Your task to perform on an android device: open device folders in google photos Image 0: 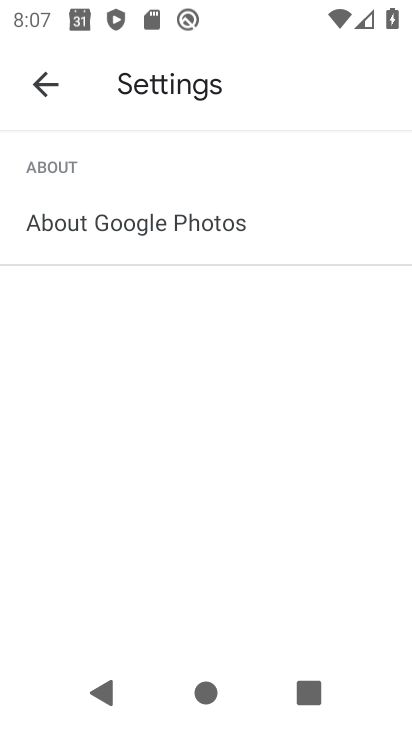
Step 0: press home button
Your task to perform on an android device: open device folders in google photos Image 1: 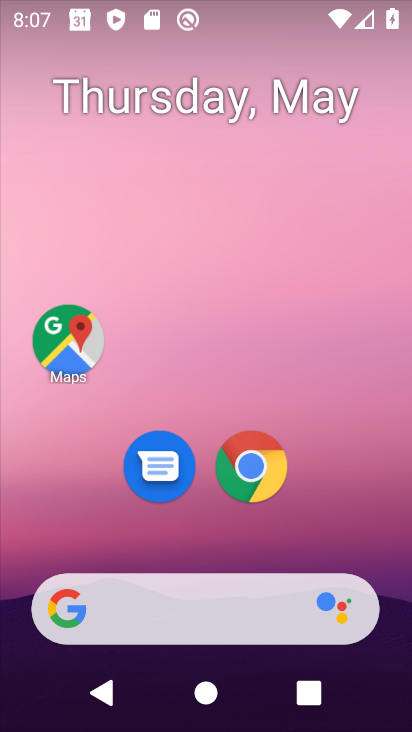
Step 1: drag from (379, 535) to (290, 152)
Your task to perform on an android device: open device folders in google photos Image 2: 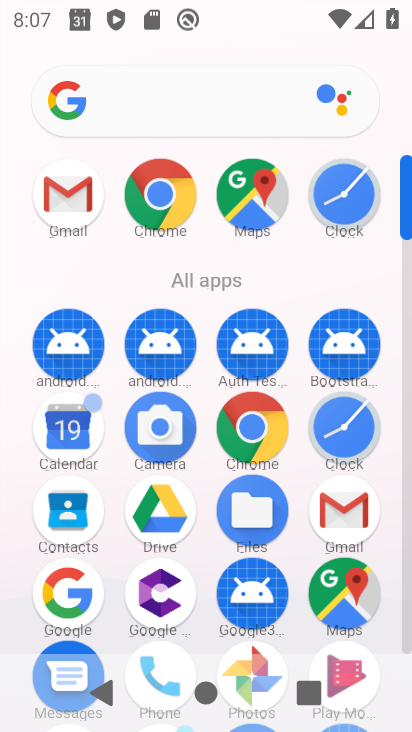
Step 2: click (409, 643)
Your task to perform on an android device: open device folders in google photos Image 3: 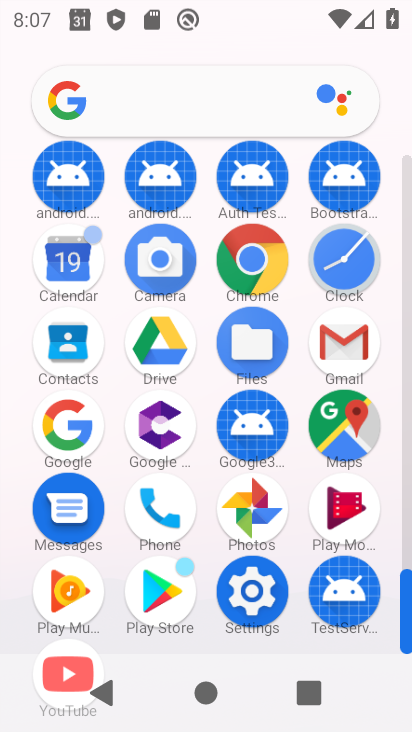
Step 3: click (235, 528)
Your task to perform on an android device: open device folders in google photos Image 4: 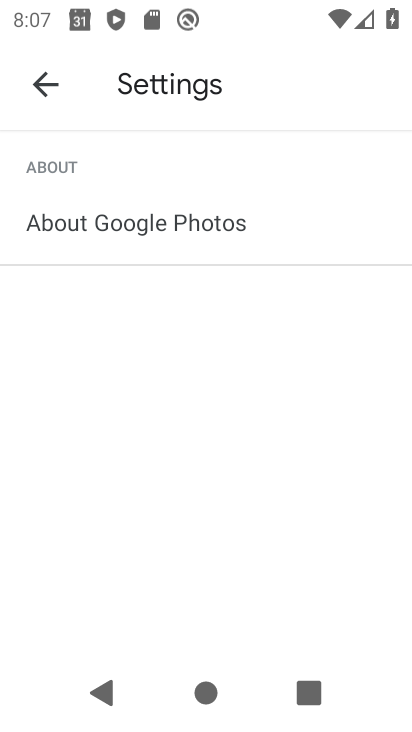
Step 4: click (51, 90)
Your task to perform on an android device: open device folders in google photos Image 5: 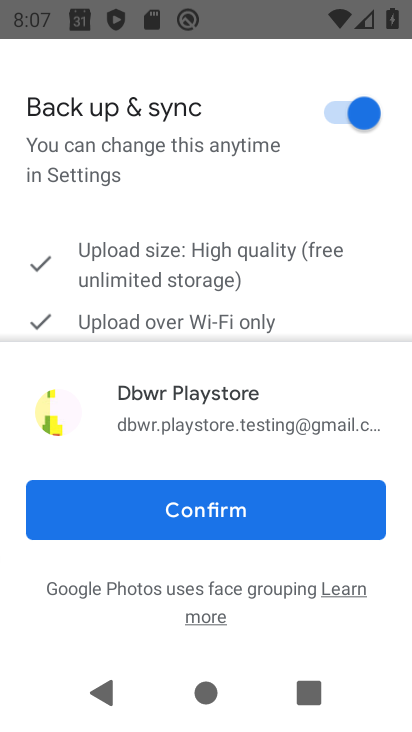
Step 5: click (273, 489)
Your task to perform on an android device: open device folders in google photos Image 6: 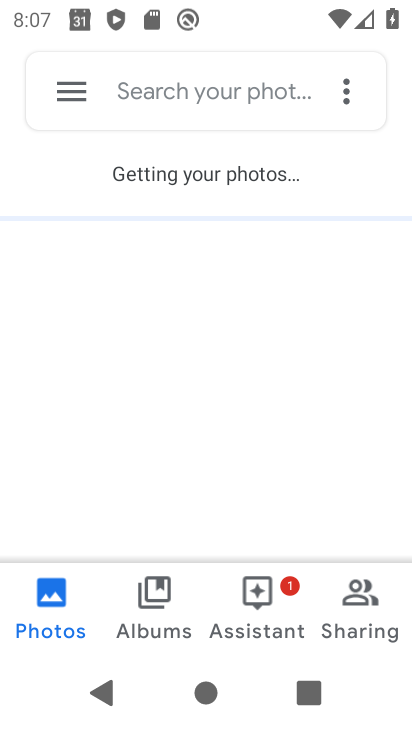
Step 6: click (71, 102)
Your task to perform on an android device: open device folders in google photos Image 7: 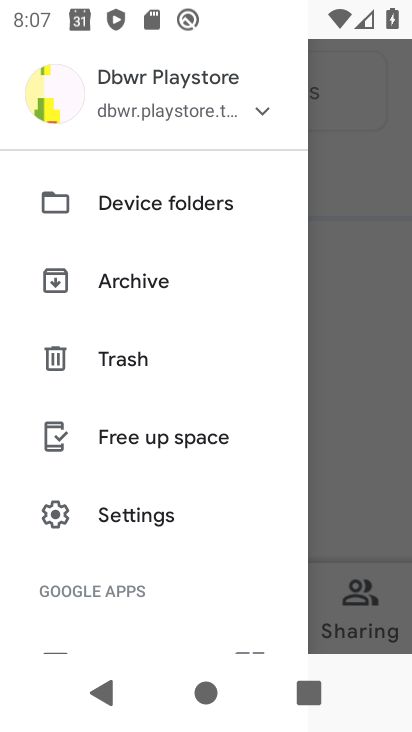
Step 7: click (106, 186)
Your task to perform on an android device: open device folders in google photos Image 8: 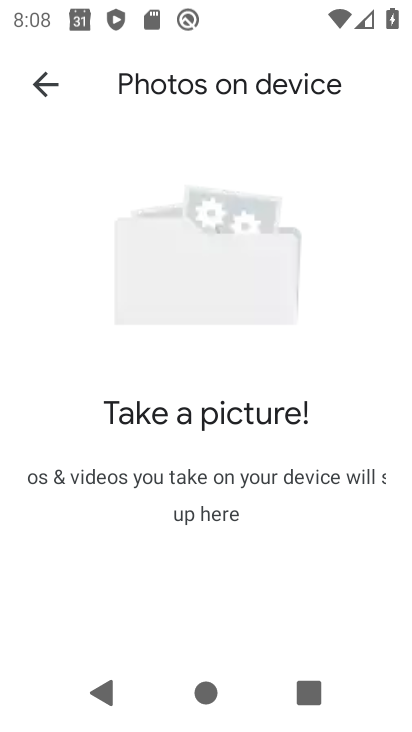
Step 8: task complete